Your task to perform on an android device: See recent photos Image 0: 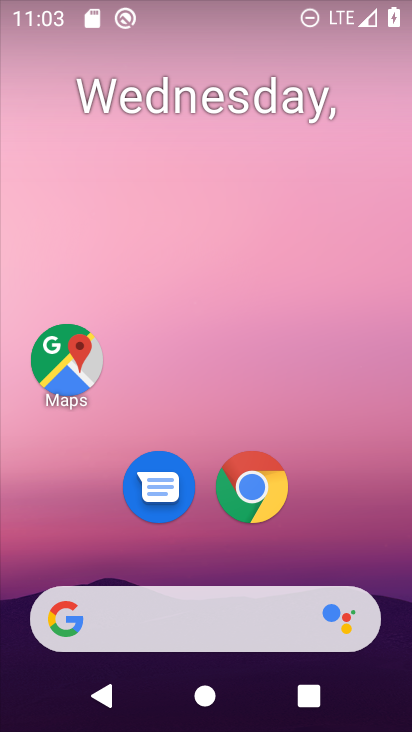
Step 0: drag from (338, 504) to (245, 17)
Your task to perform on an android device: See recent photos Image 1: 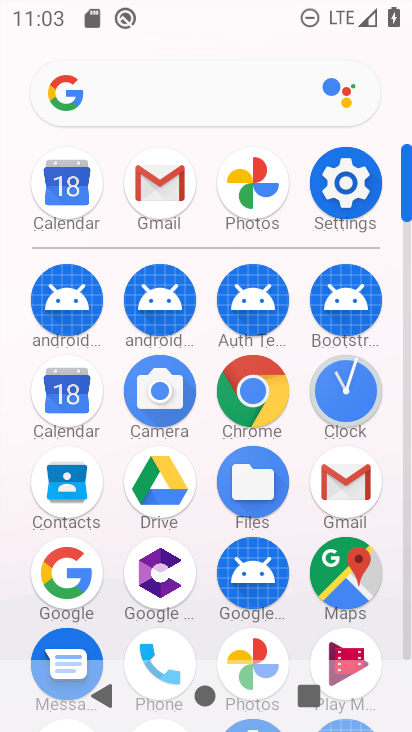
Step 1: click (248, 186)
Your task to perform on an android device: See recent photos Image 2: 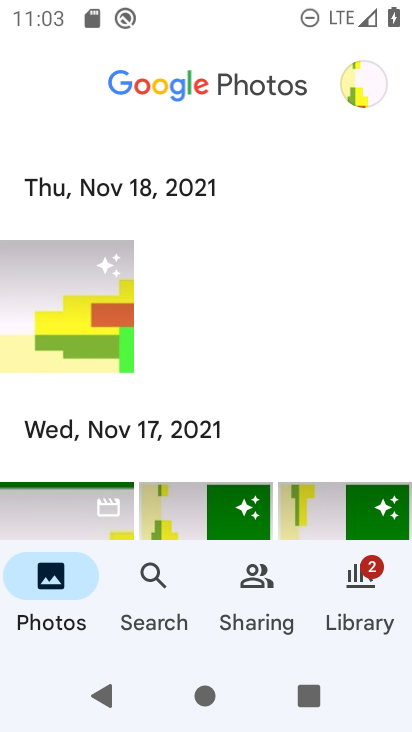
Step 2: task complete